Your task to perform on an android device: turn on improve location accuracy Image 0: 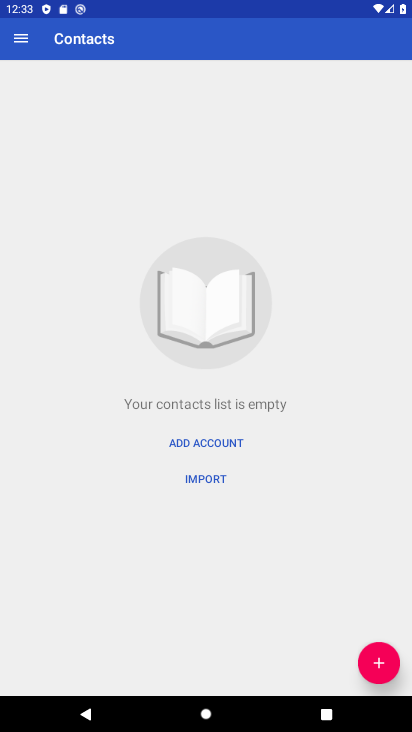
Step 0: press home button
Your task to perform on an android device: turn on improve location accuracy Image 1: 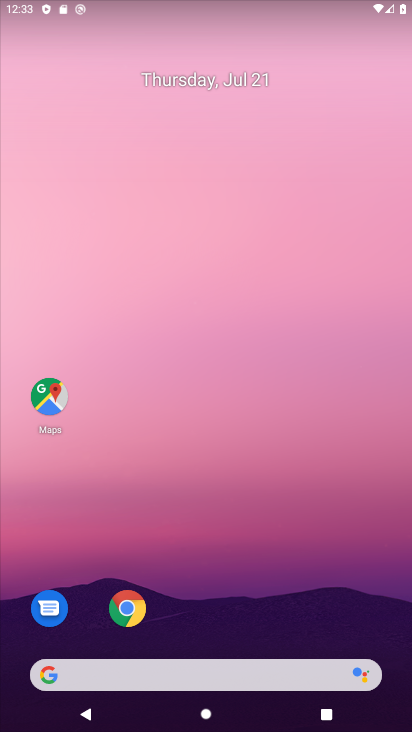
Step 1: drag from (227, 558) to (205, 85)
Your task to perform on an android device: turn on improve location accuracy Image 2: 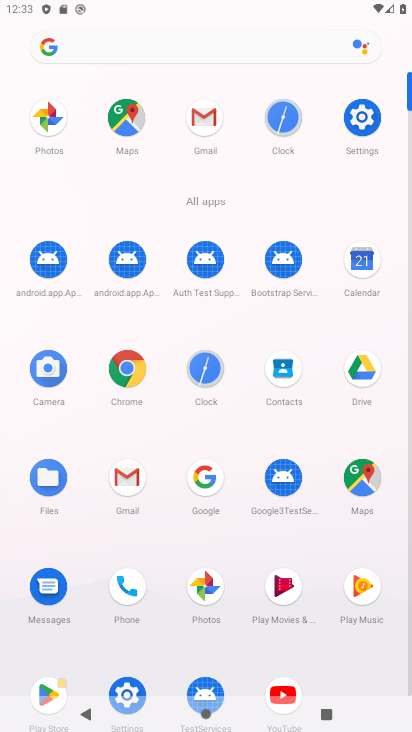
Step 2: click (361, 116)
Your task to perform on an android device: turn on improve location accuracy Image 3: 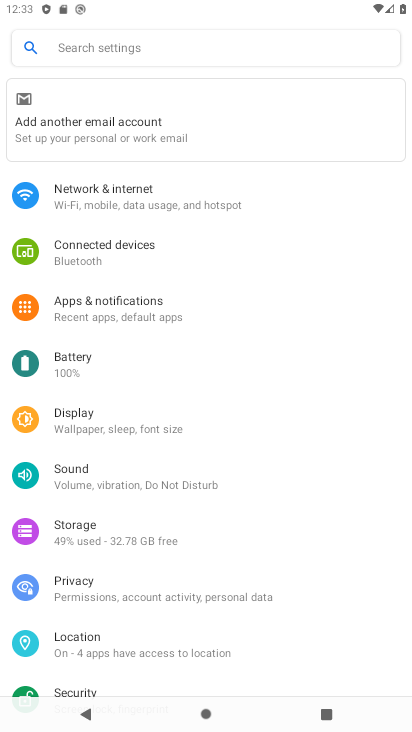
Step 3: click (81, 642)
Your task to perform on an android device: turn on improve location accuracy Image 4: 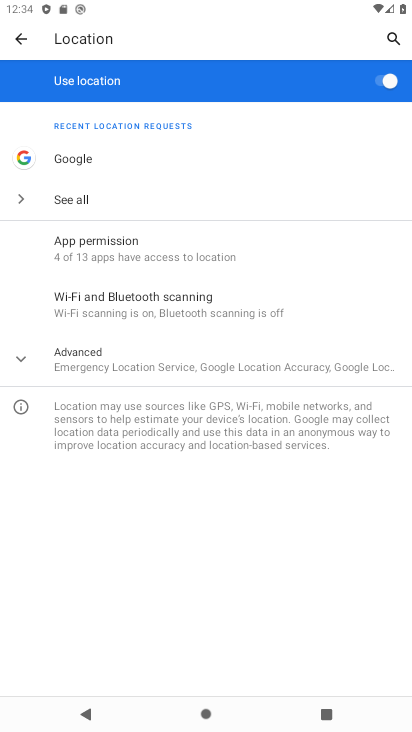
Step 4: click (82, 358)
Your task to perform on an android device: turn on improve location accuracy Image 5: 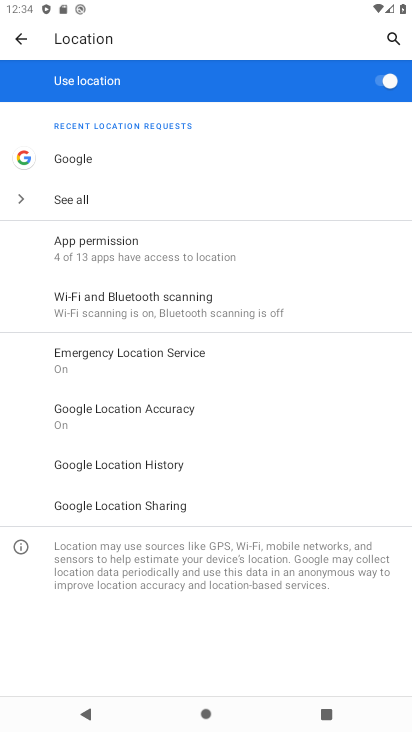
Step 5: click (111, 400)
Your task to perform on an android device: turn on improve location accuracy Image 6: 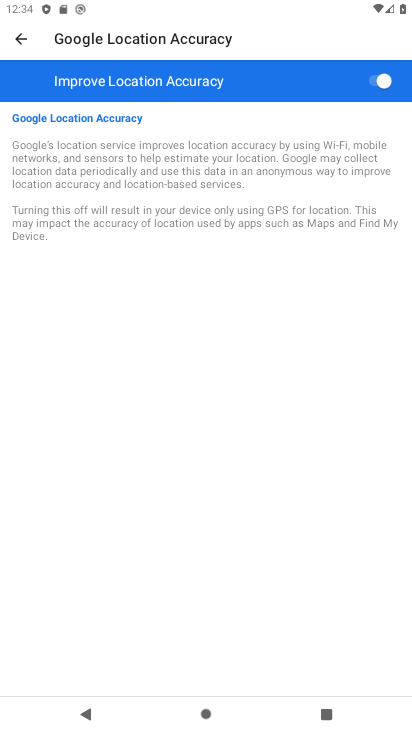
Step 6: task complete